Your task to perform on an android device: Open Chrome and go to settings Image 0: 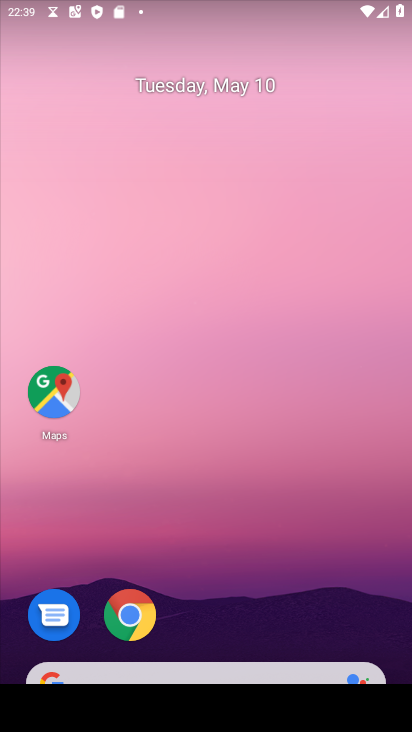
Step 0: click (129, 612)
Your task to perform on an android device: Open Chrome and go to settings Image 1: 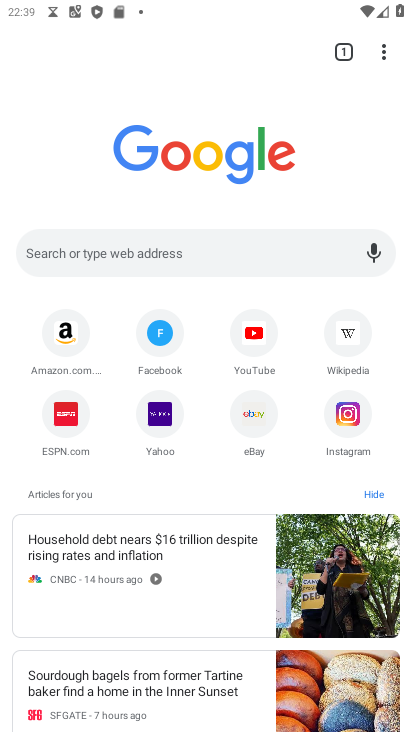
Step 1: click (382, 51)
Your task to perform on an android device: Open Chrome and go to settings Image 2: 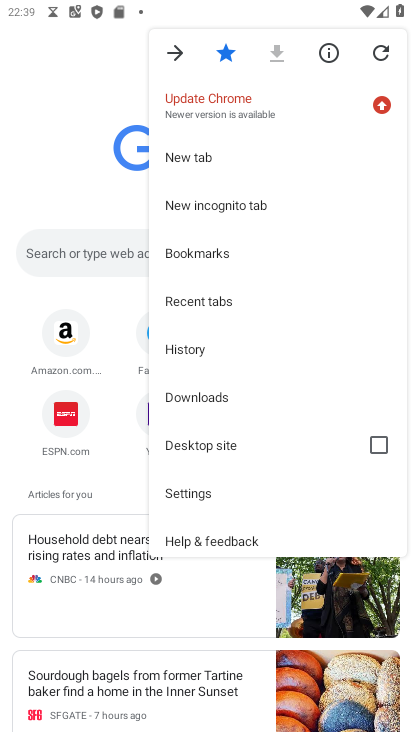
Step 2: click (189, 495)
Your task to perform on an android device: Open Chrome and go to settings Image 3: 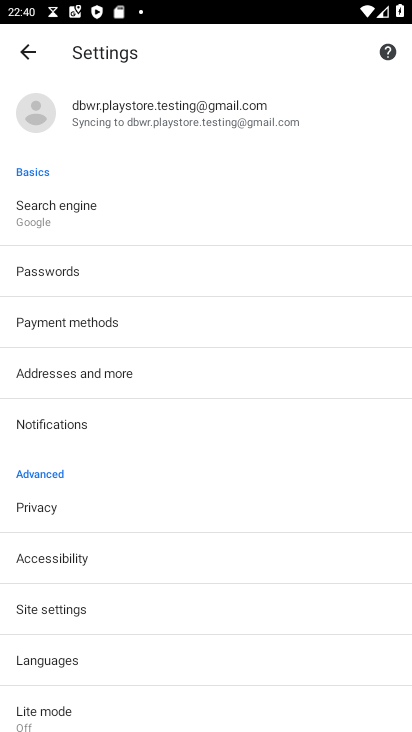
Step 3: task complete